Your task to perform on an android device: Play the last video I watched on Youtube Image 0: 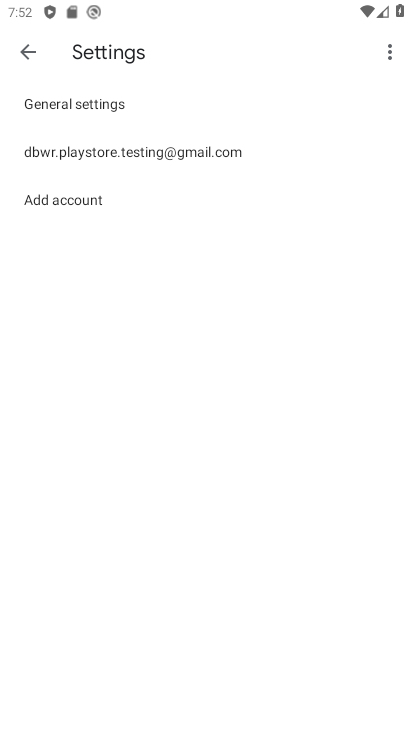
Step 0: press home button
Your task to perform on an android device: Play the last video I watched on Youtube Image 1: 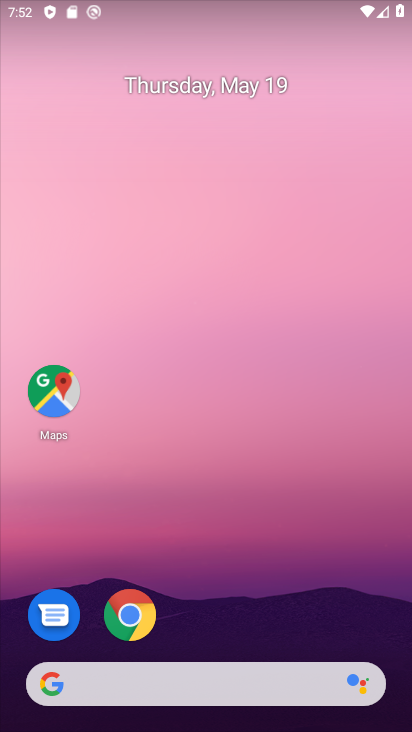
Step 1: drag from (313, 393) to (304, 127)
Your task to perform on an android device: Play the last video I watched on Youtube Image 2: 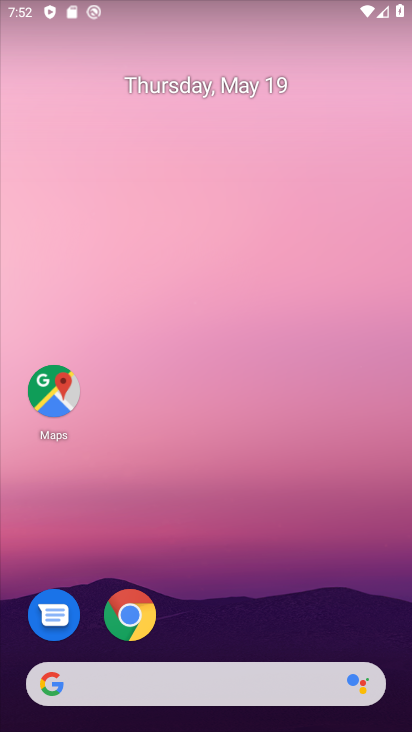
Step 2: drag from (311, 631) to (270, 136)
Your task to perform on an android device: Play the last video I watched on Youtube Image 3: 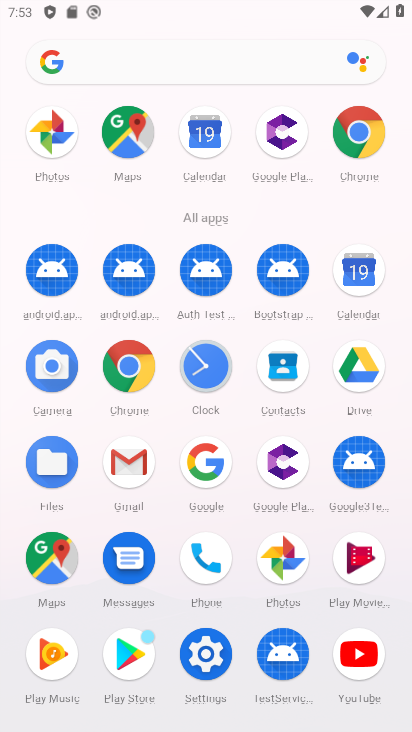
Step 3: click (351, 669)
Your task to perform on an android device: Play the last video I watched on Youtube Image 4: 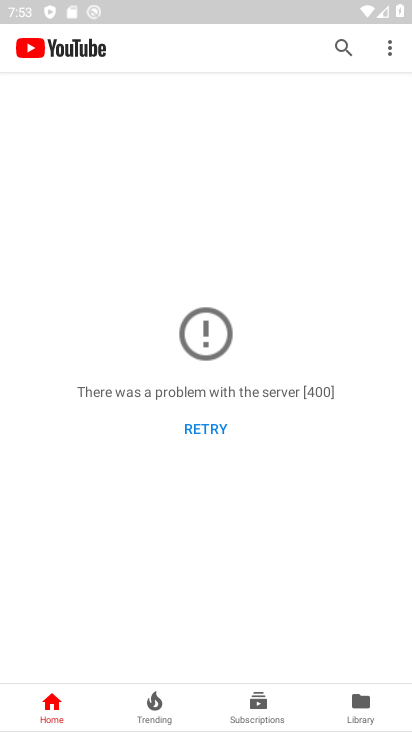
Step 4: click (373, 702)
Your task to perform on an android device: Play the last video I watched on Youtube Image 5: 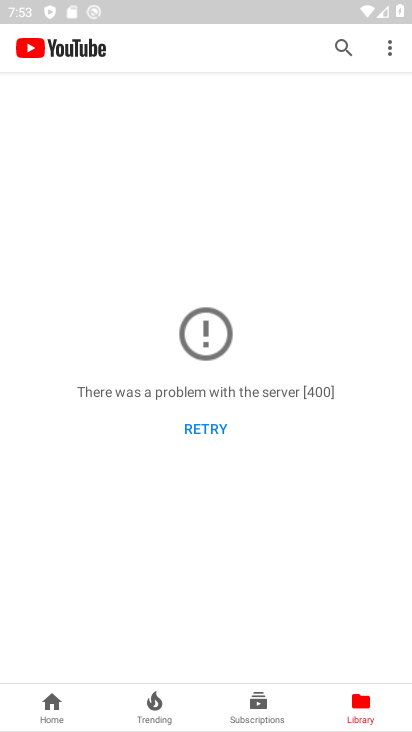
Step 5: click (205, 432)
Your task to perform on an android device: Play the last video I watched on Youtube Image 6: 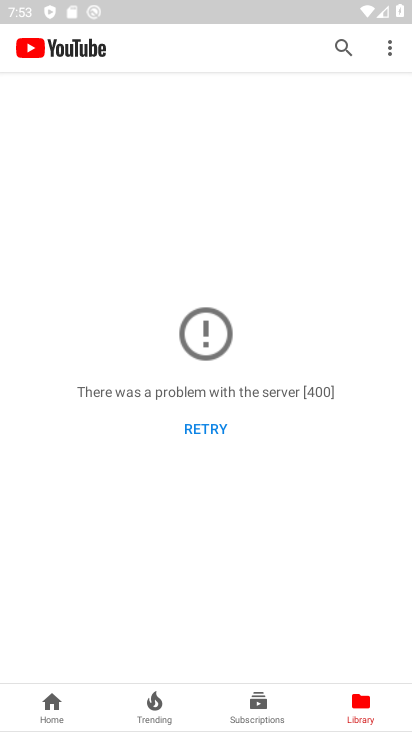
Step 6: task complete